Your task to perform on an android device: set the timer Image 0: 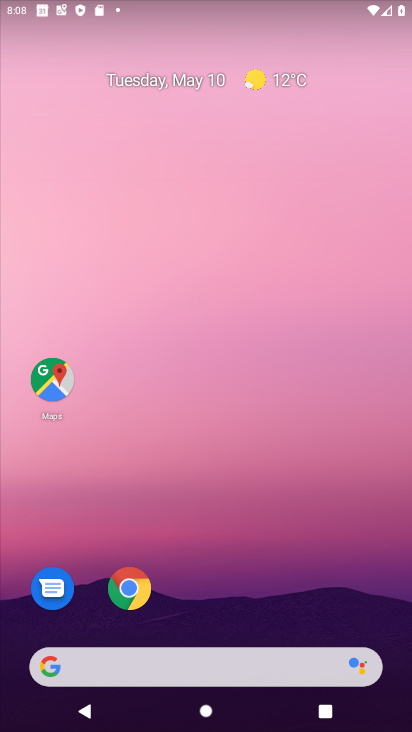
Step 0: drag from (198, 616) to (222, 354)
Your task to perform on an android device: set the timer Image 1: 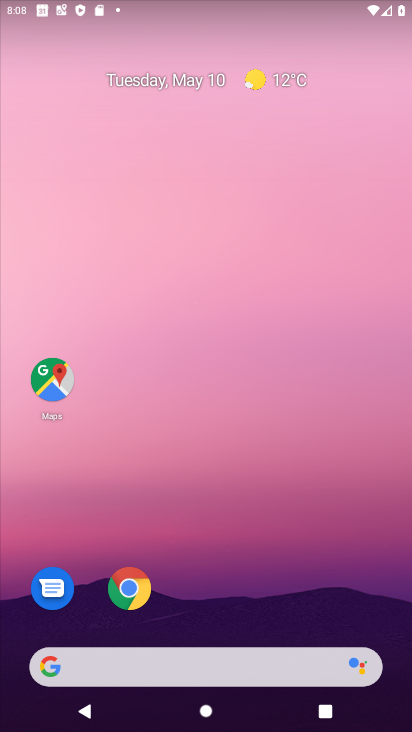
Step 1: drag from (235, 609) to (252, 72)
Your task to perform on an android device: set the timer Image 2: 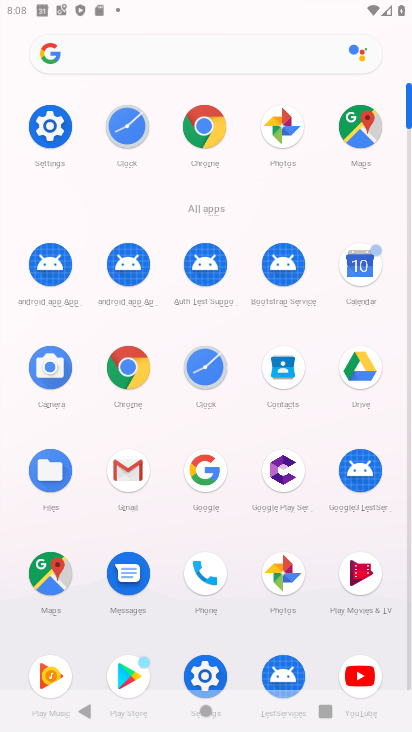
Step 2: click (191, 401)
Your task to perform on an android device: set the timer Image 3: 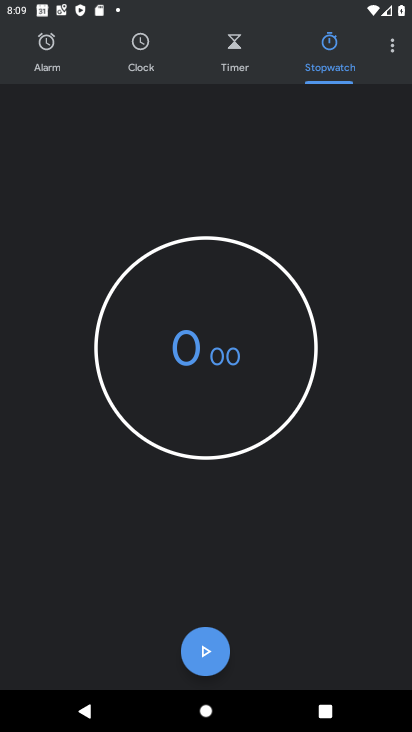
Step 3: click (224, 60)
Your task to perform on an android device: set the timer Image 4: 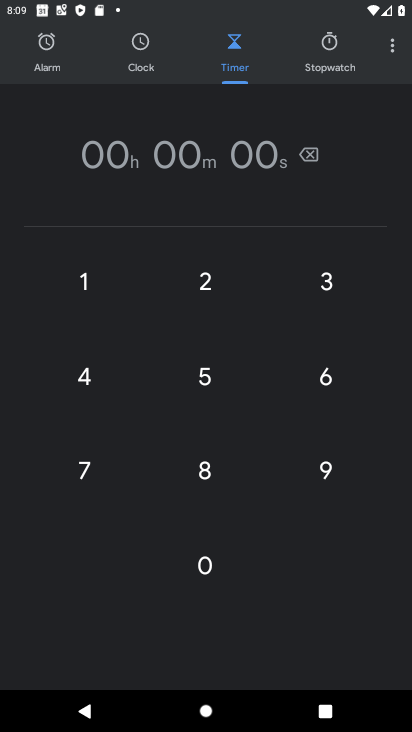
Step 4: click (360, 484)
Your task to perform on an android device: set the timer Image 5: 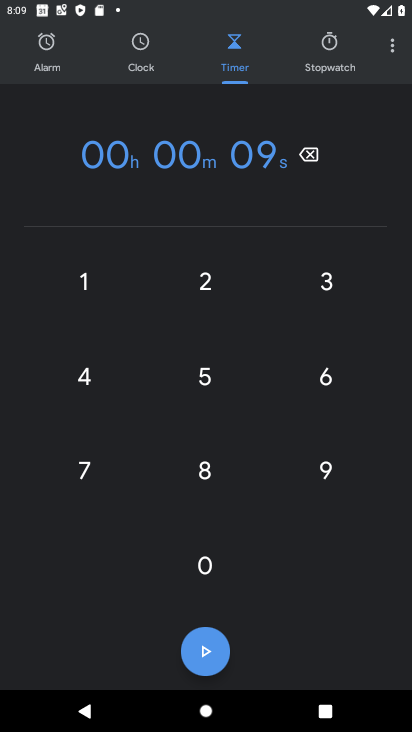
Step 5: click (360, 484)
Your task to perform on an android device: set the timer Image 6: 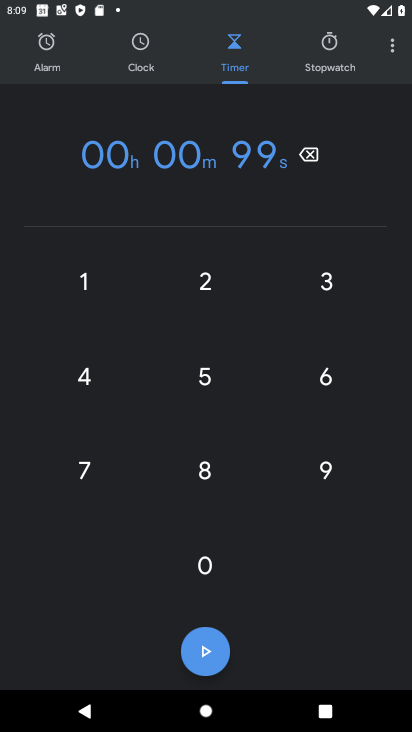
Step 6: click (210, 667)
Your task to perform on an android device: set the timer Image 7: 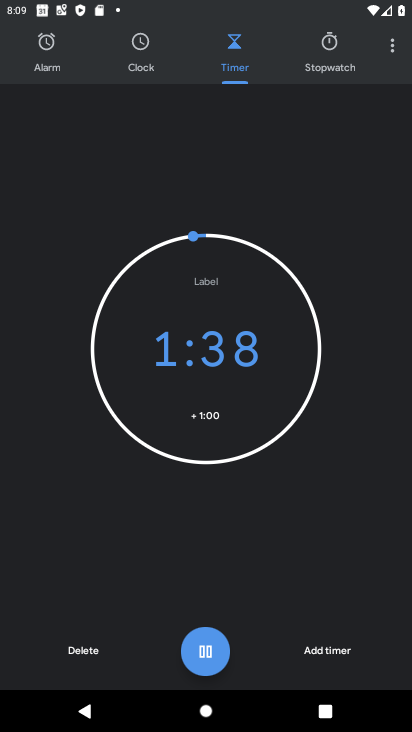
Step 7: task complete